Your task to perform on an android device: change your default location settings in chrome Image 0: 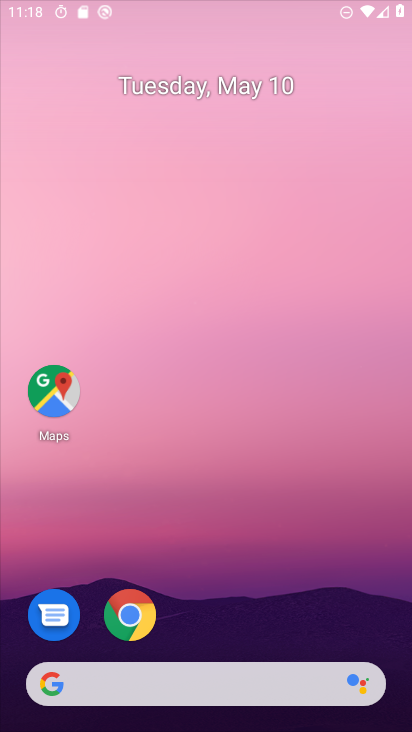
Step 0: drag from (260, 551) to (348, 135)
Your task to perform on an android device: change your default location settings in chrome Image 1: 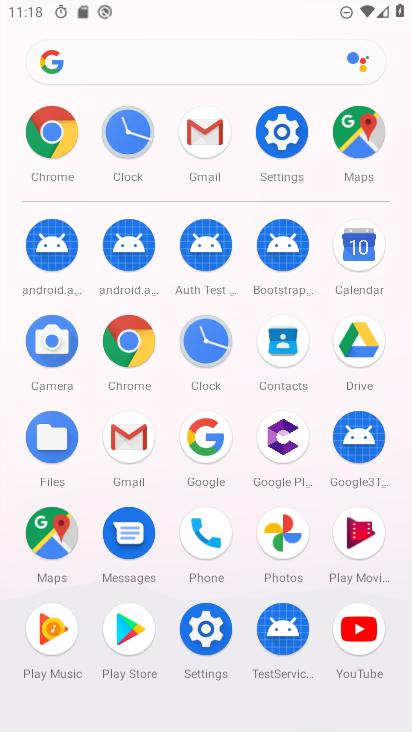
Step 1: click (129, 350)
Your task to perform on an android device: change your default location settings in chrome Image 2: 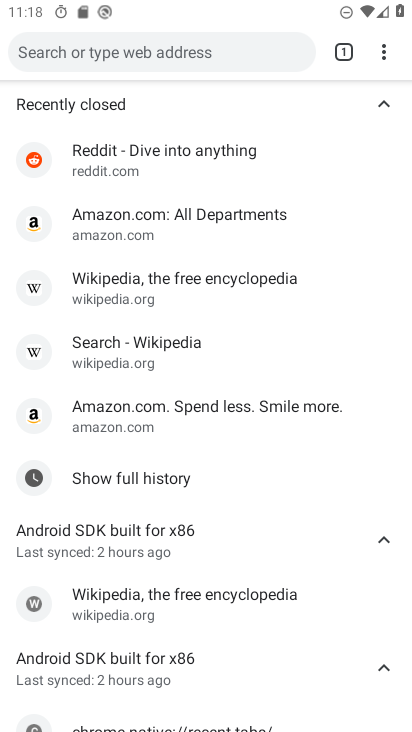
Step 2: click (387, 54)
Your task to perform on an android device: change your default location settings in chrome Image 3: 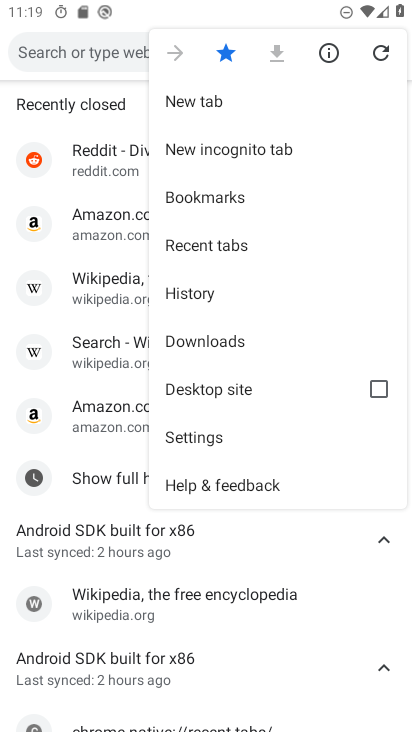
Step 3: click (199, 444)
Your task to perform on an android device: change your default location settings in chrome Image 4: 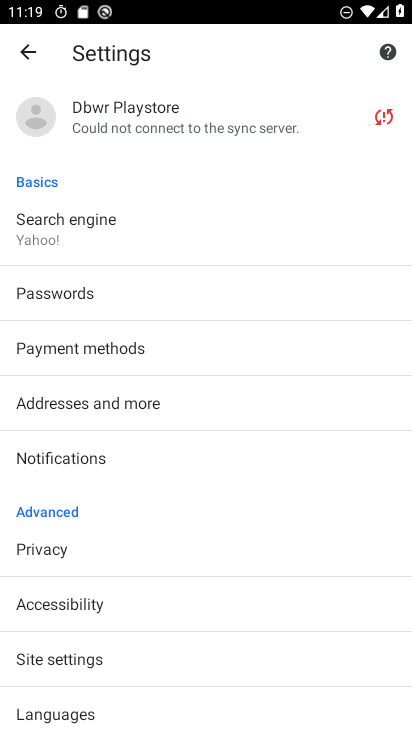
Step 4: drag from (168, 650) to (118, 239)
Your task to perform on an android device: change your default location settings in chrome Image 5: 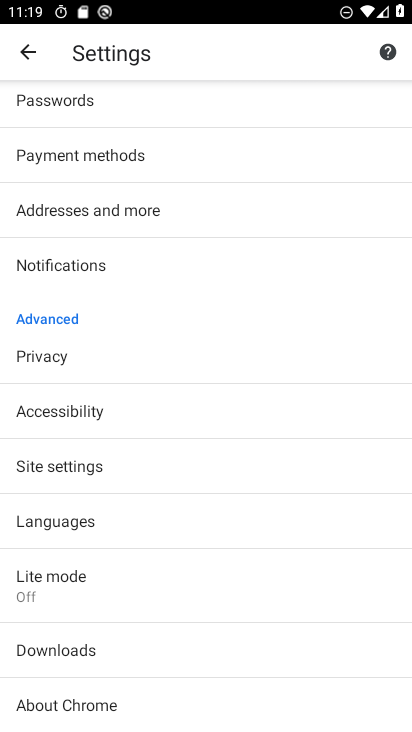
Step 5: click (80, 434)
Your task to perform on an android device: change your default location settings in chrome Image 6: 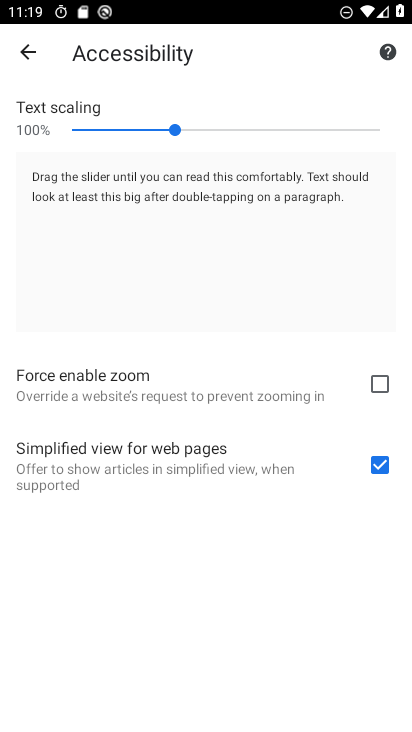
Step 6: click (38, 51)
Your task to perform on an android device: change your default location settings in chrome Image 7: 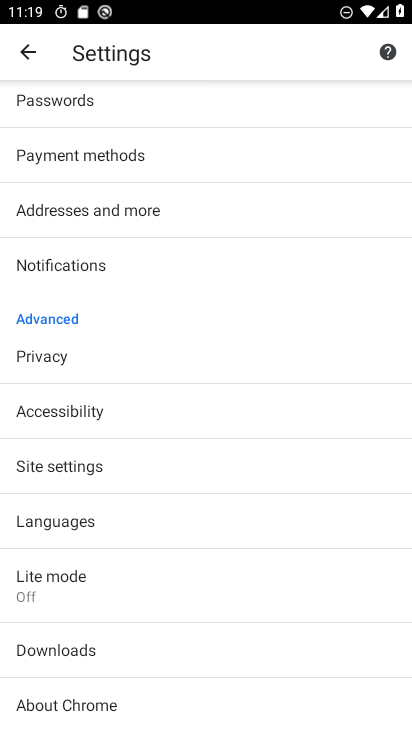
Step 7: click (68, 472)
Your task to perform on an android device: change your default location settings in chrome Image 8: 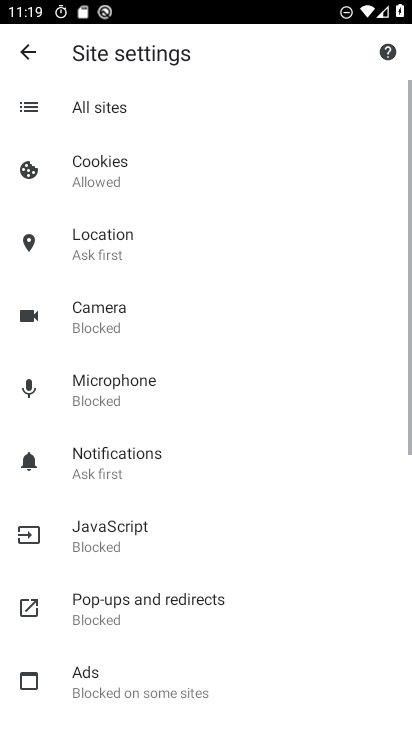
Step 8: drag from (227, 560) to (260, 262)
Your task to perform on an android device: change your default location settings in chrome Image 9: 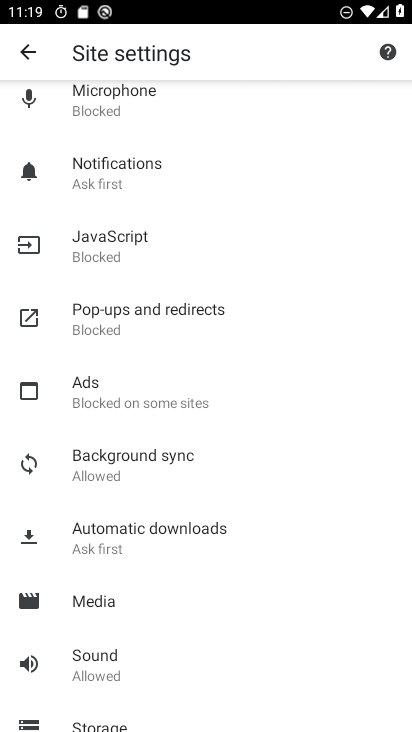
Step 9: drag from (141, 242) to (221, 717)
Your task to perform on an android device: change your default location settings in chrome Image 10: 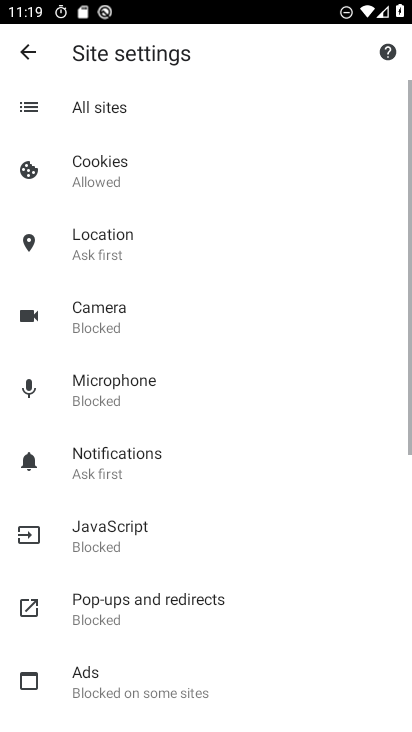
Step 10: click (129, 250)
Your task to perform on an android device: change your default location settings in chrome Image 11: 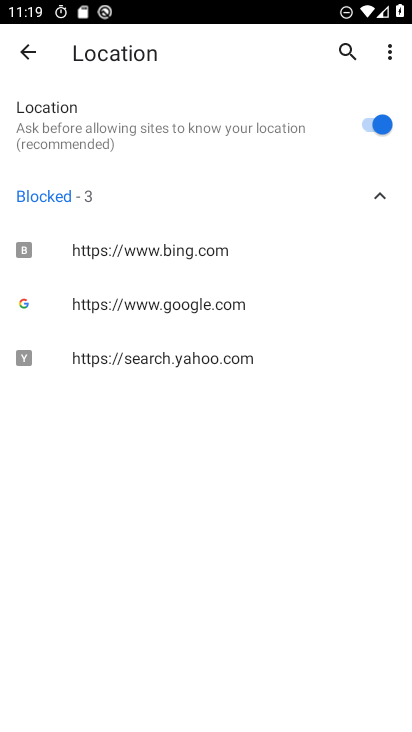
Step 11: task complete